Your task to perform on an android device: turn on translation in the chrome app Image 0: 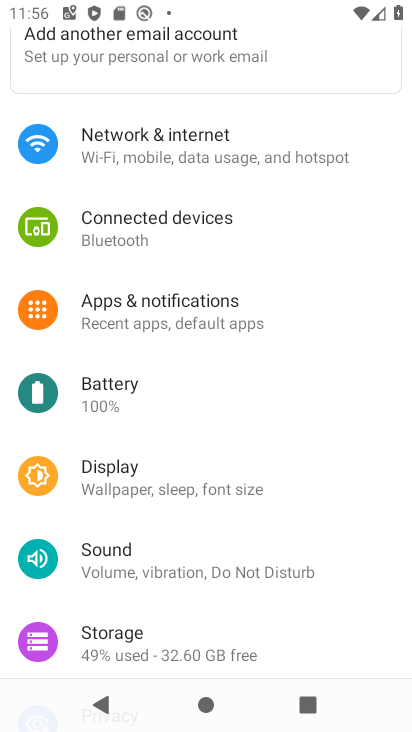
Step 0: press home button
Your task to perform on an android device: turn on translation in the chrome app Image 1: 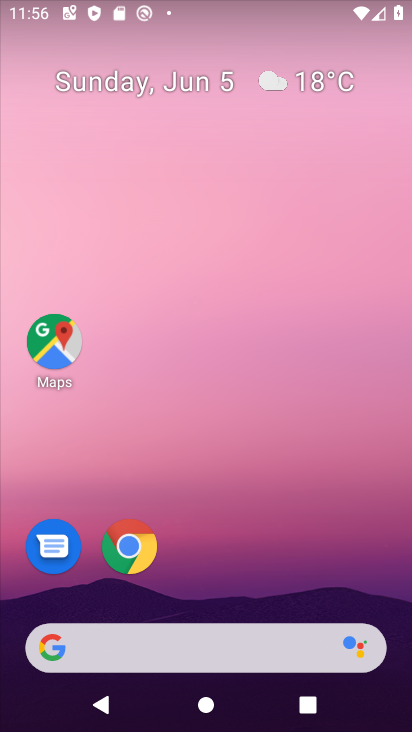
Step 1: click (141, 561)
Your task to perform on an android device: turn on translation in the chrome app Image 2: 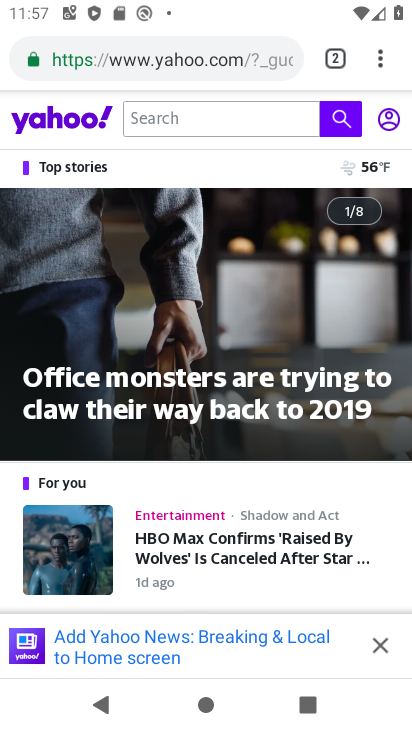
Step 2: click (380, 50)
Your task to perform on an android device: turn on translation in the chrome app Image 3: 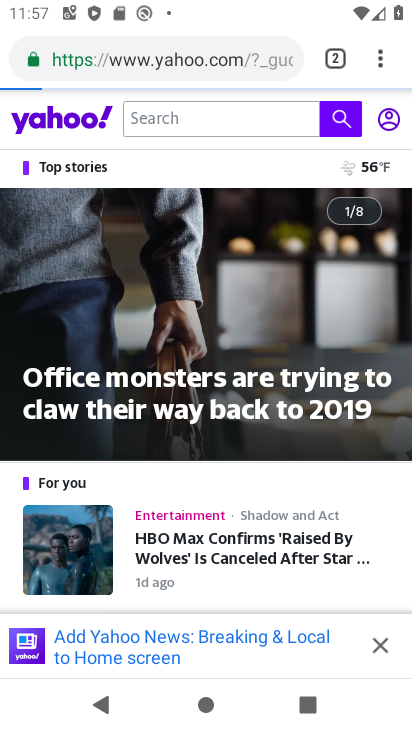
Step 3: drag from (378, 58) to (195, 574)
Your task to perform on an android device: turn on translation in the chrome app Image 4: 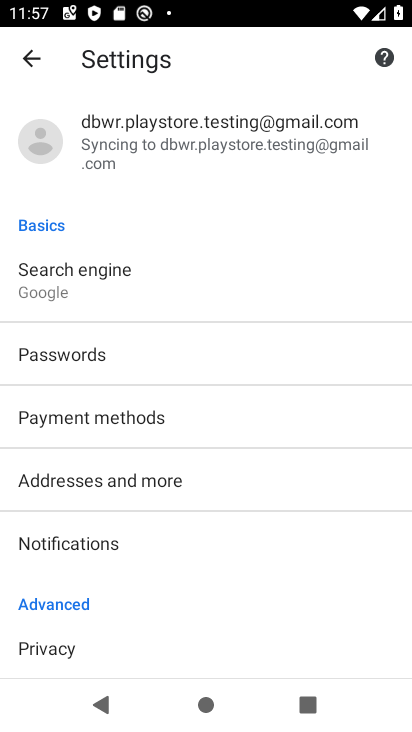
Step 4: drag from (172, 605) to (257, 49)
Your task to perform on an android device: turn on translation in the chrome app Image 5: 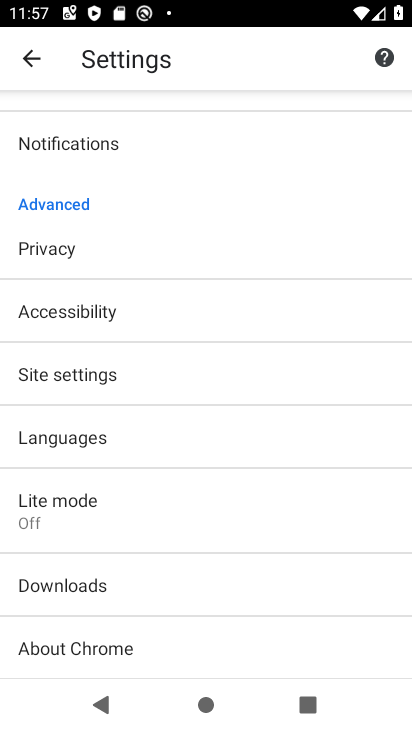
Step 5: click (156, 432)
Your task to perform on an android device: turn on translation in the chrome app Image 6: 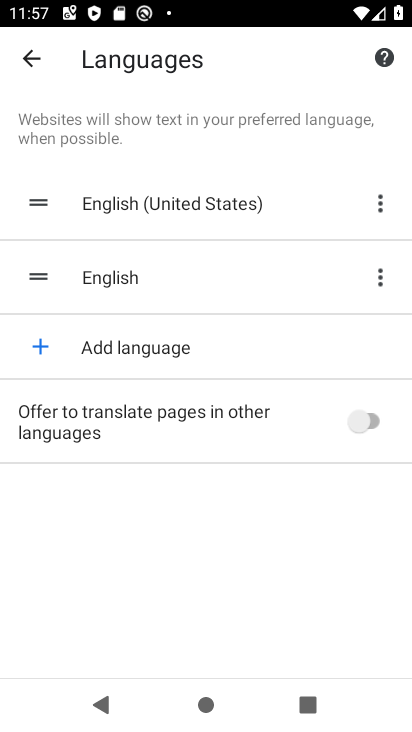
Step 6: click (366, 416)
Your task to perform on an android device: turn on translation in the chrome app Image 7: 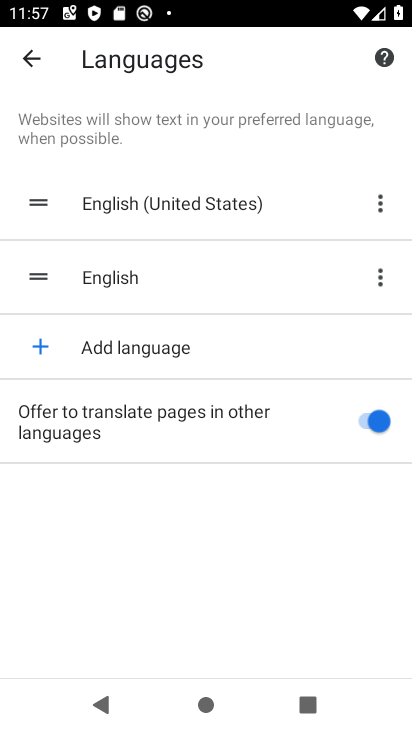
Step 7: task complete